Your task to perform on an android device: Go to accessibility settings Image 0: 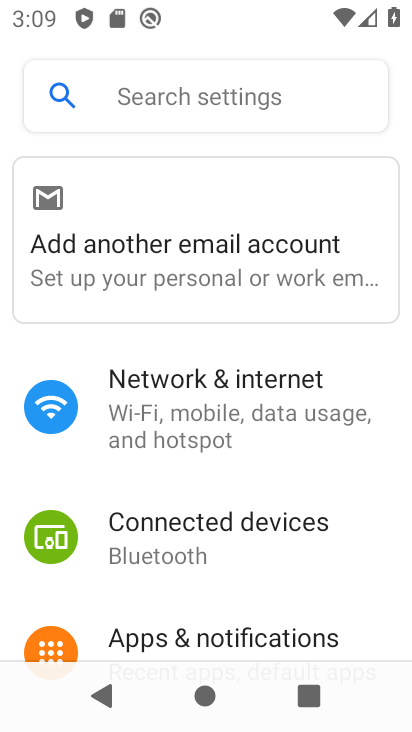
Step 0: drag from (255, 610) to (260, 133)
Your task to perform on an android device: Go to accessibility settings Image 1: 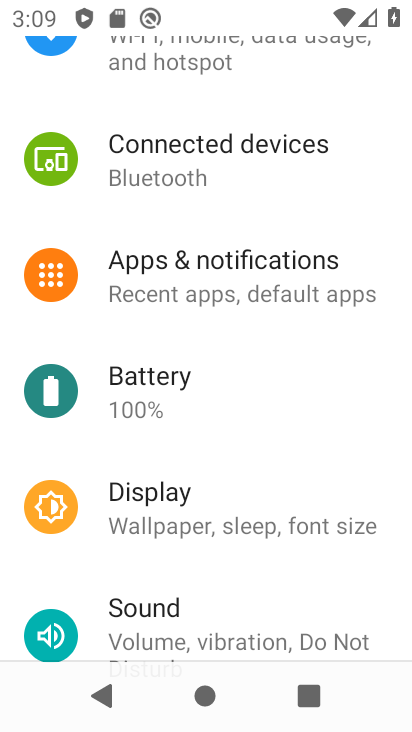
Step 1: drag from (240, 612) to (248, 169)
Your task to perform on an android device: Go to accessibility settings Image 2: 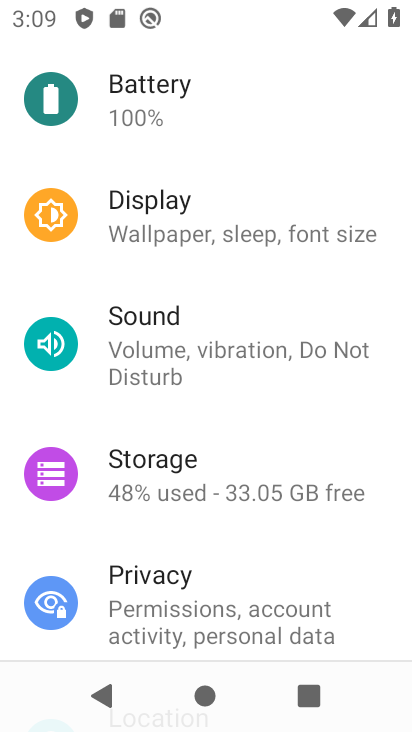
Step 2: drag from (223, 539) to (229, 138)
Your task to perform on an android device: Go to accessibility settings Image 3: 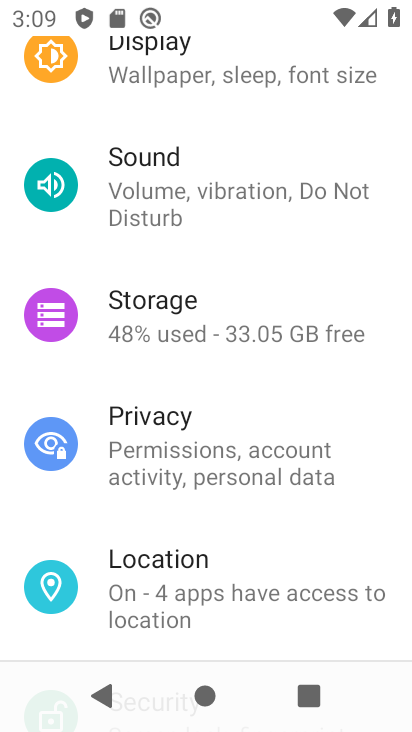
Step 3: drag from (250, 574) to (257, 134)
Your task to perform on an android device: Go to accessibility settings Image 4: 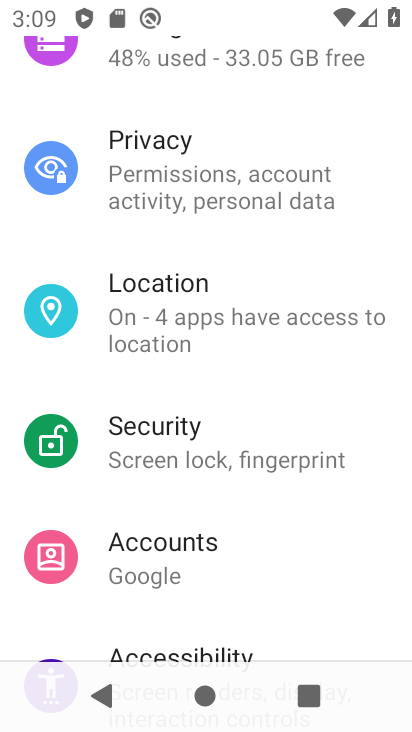
Step 4: drag from (236, 568) to (252, 216)
Your task to perform on an android device: Go to accessibility settings Image 5: 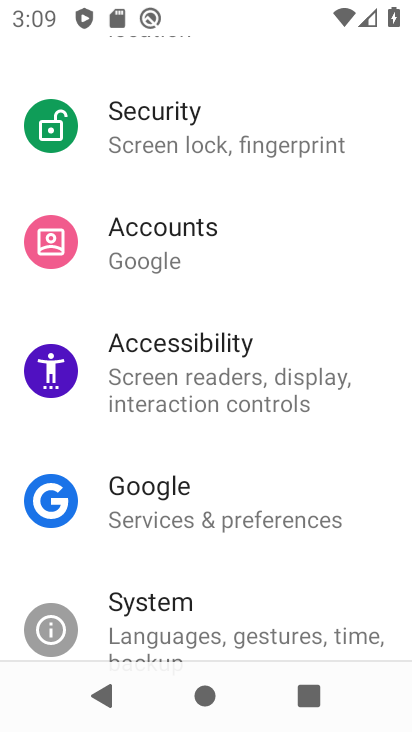
Step 5: click (209, 391)
Your task to perform on an android device: Go to accessibility settings Image 6: 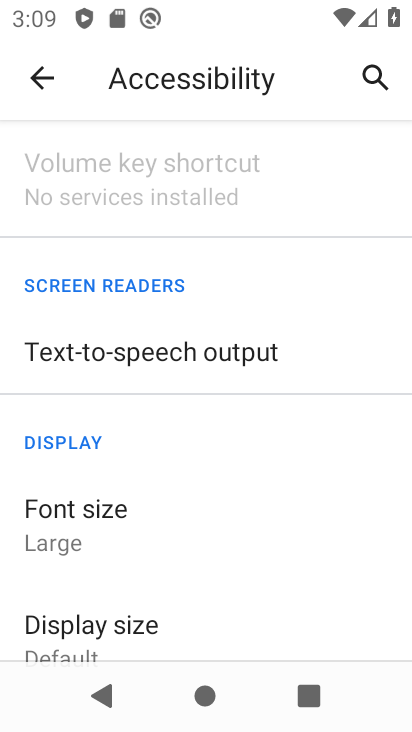
Step 6: task complete